Your task to perform on an android device: toggle javascript in the chrome app Image 0: 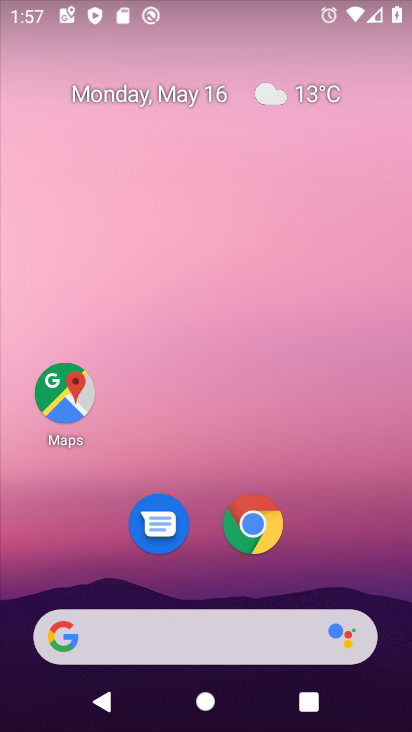
Step 0: click (255, 523)
Your task to perform on an android device: toggle javascript in the chrome app Image 1: 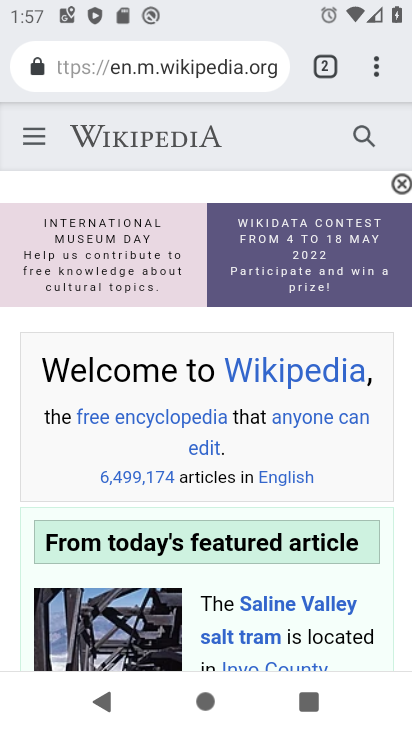
Step 1: click (374, 68)
Your task to perform on an android device: toggle javascript in the chrome app Image 2: 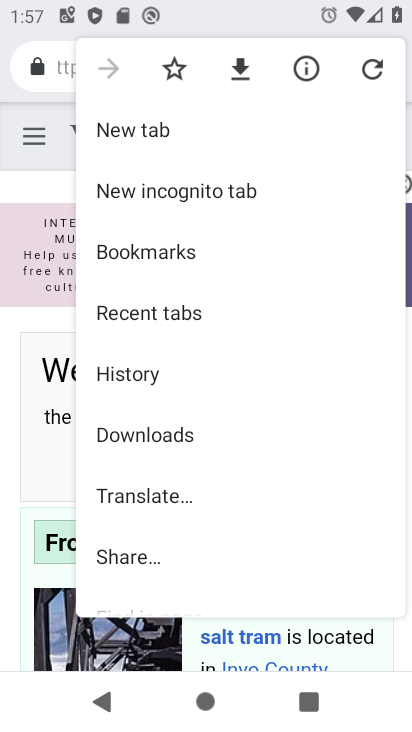
Step 2: drag from (257, 462) to (261, 176)
Your task to perform on an android device: toggle javascript in the chrome app Image 3: 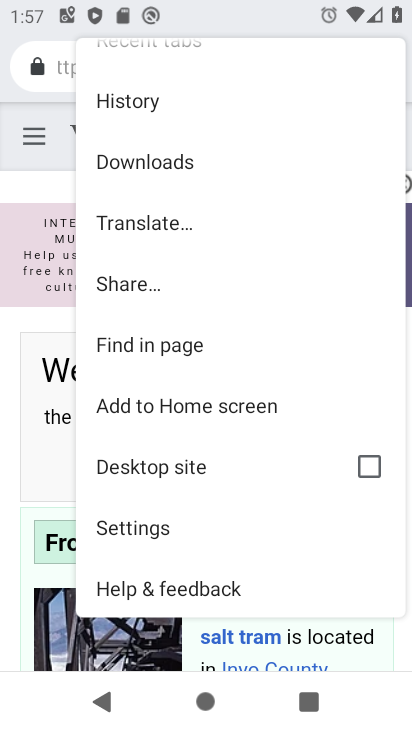
Step 3: click (215, 526)
Your task to perform on an android device: toggle javascript in the chrome app Image 4: 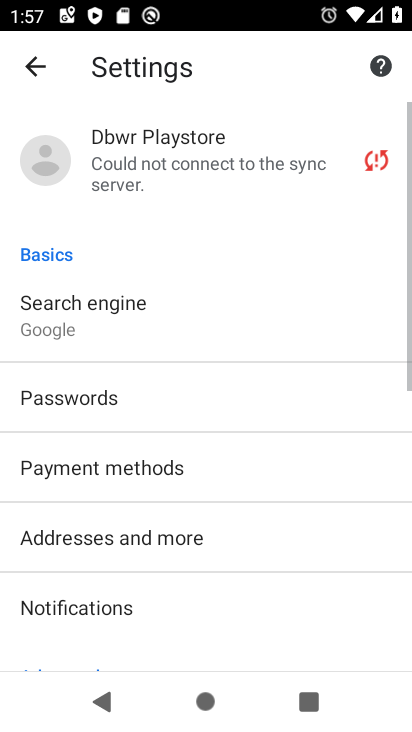
Step 4: drag from (225, 521) to (242, 184)
Your task to perform on an android device: toggle javascript in the chrome app Image 5: 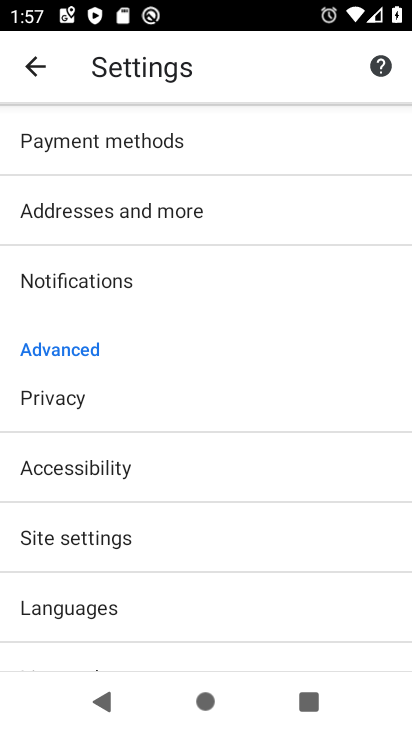
Step 5: click (178, 534)
Your task to perform on an android device: toggle javascript in the chrome app Image 6: 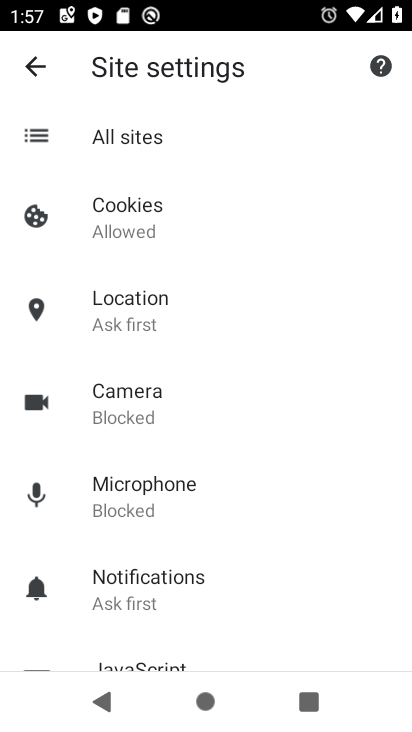
Step 6: drag from (243, 515) to (271, 217)
Your task to perform on an android device: toggle javascript in the chrome app Image 7: 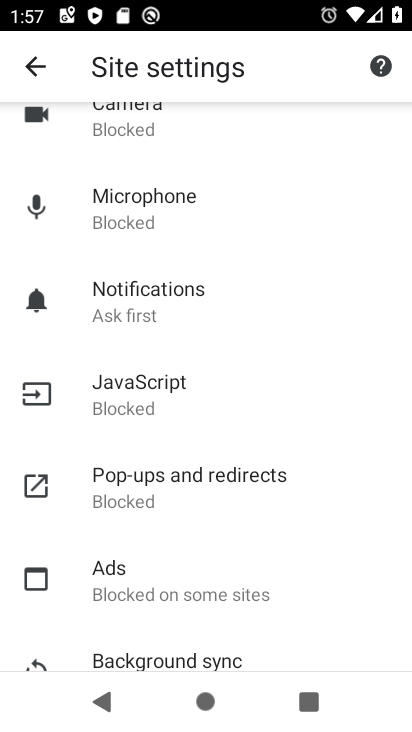
Step 7: click (212, 385)
Your task to perform on an android device: toggle javascript in the chrome app Image 8: 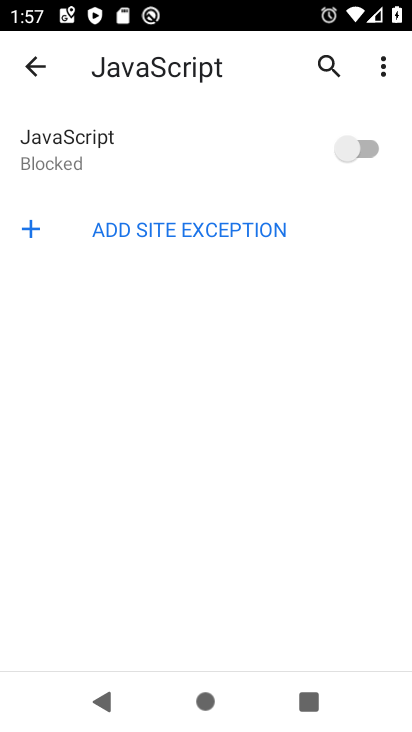
Step 8: click (362, 138)
Your task to perform on an android device: toggle javascript in the chrome app Image 9: 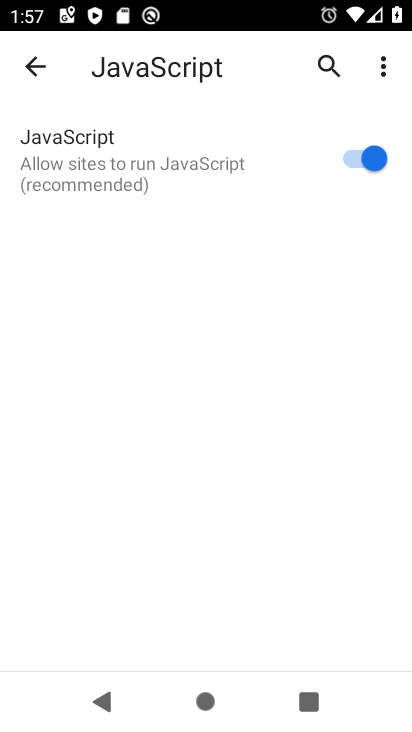
Step 9: task complete